Your task to perform on an android device: open chrome privacy settings Image 0: 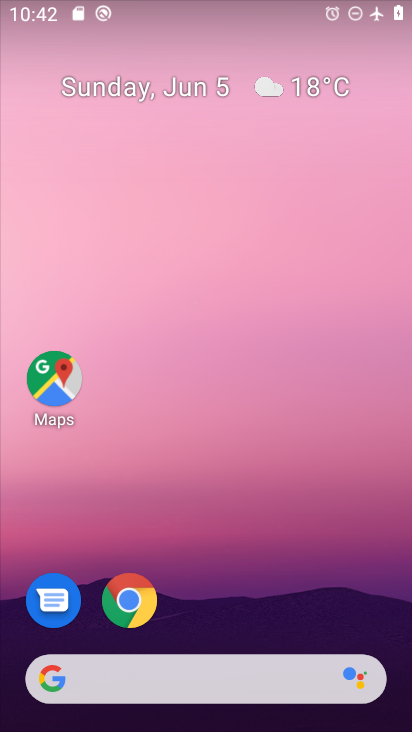
Step 0: click (139, 597)
Your task to perform on an android device: open chrome privacy settings Image 1: 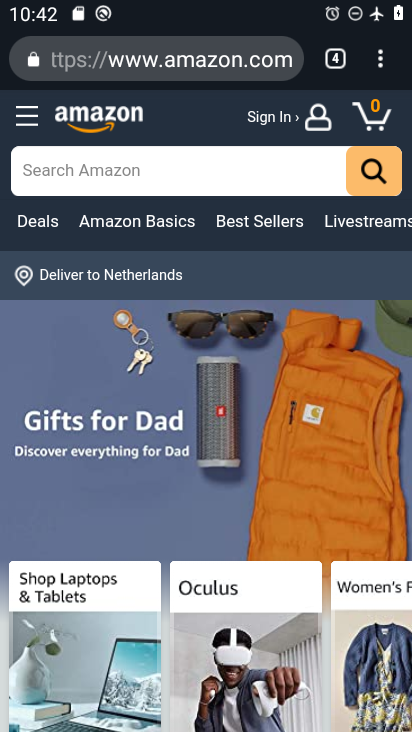
Step 1: click (376, 59)
Your task to perform on an android device: open chrome privacy settings Image 2: 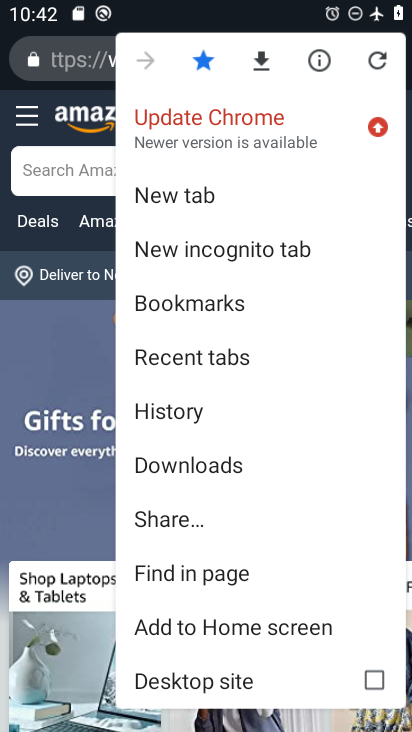
Step 2: drag from (268, 518) to (251, 201)
Your task to perform on an android device: open chrome privacy settings Image 3: 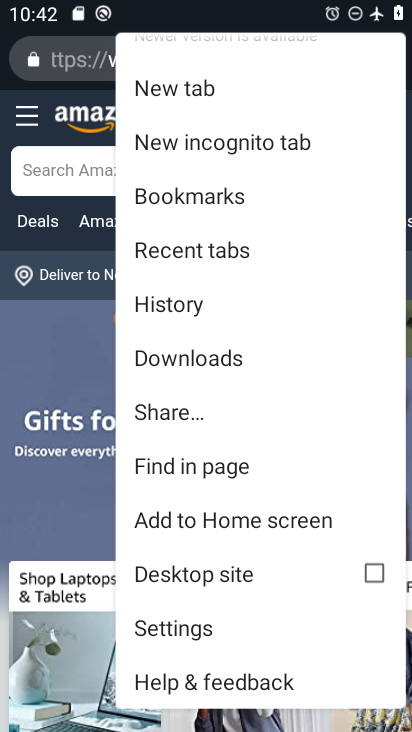
Step 3: click (206, 613)
Your task to perform on an android device: open chrome privacy settings Image 4: 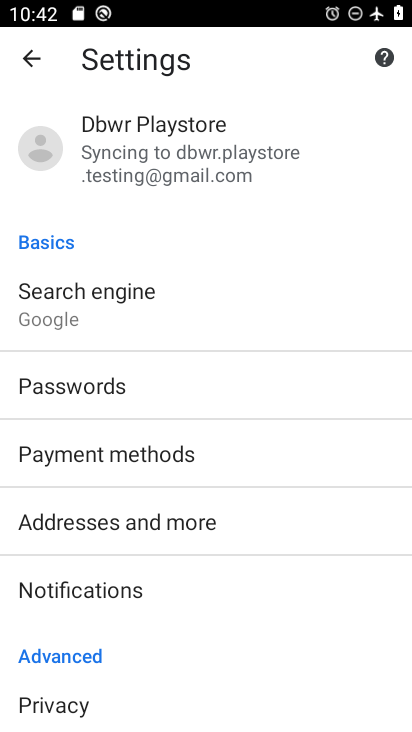
Step 4: click (175, 708)
Your task to perform on an android device: open chrome privacy settings Image 5: 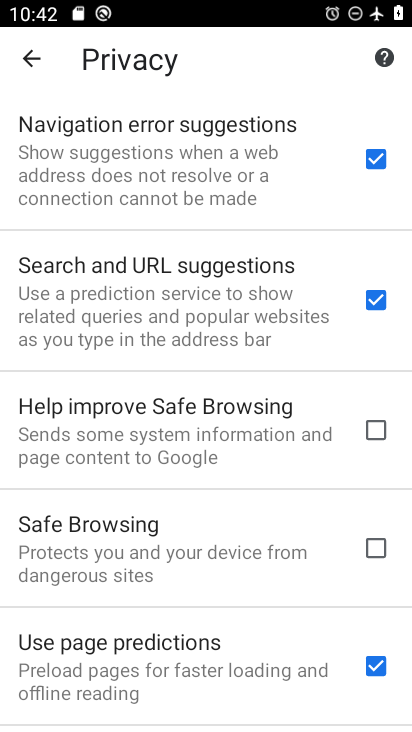
Step 5: task complete